Your task to perform on an android device: Go to Android settings Image 0: 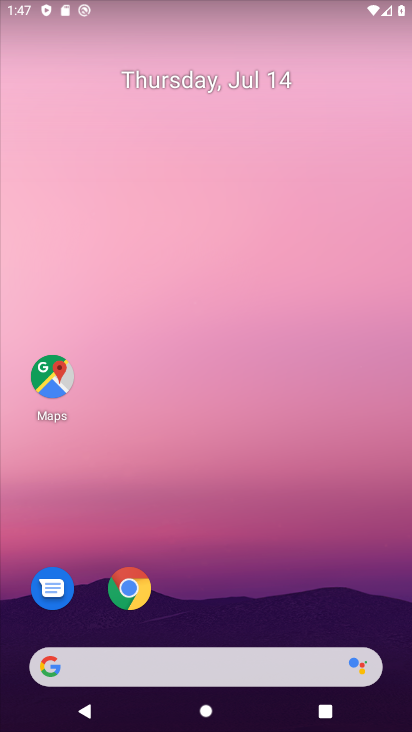
Step 0: drag from (274, 590) to (312, 163)
Your task to perform on an android device: Go to Android settings Image 1: 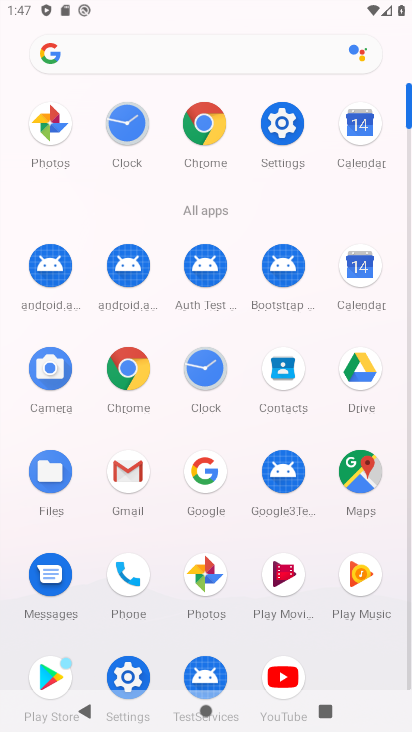
Step 1: click (287, 128)
Your task to perform on an android device: Go to Android settings Image 2: 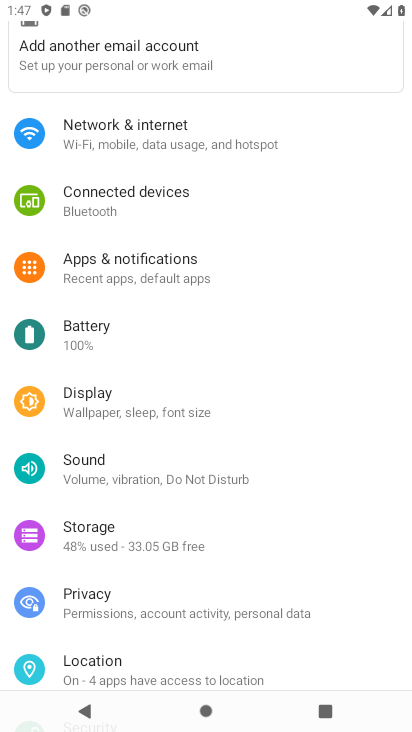
Step 2: drag from (176, 580) to (158, 221)
Your task to perform on an android device: Go to Android settings Image 3: 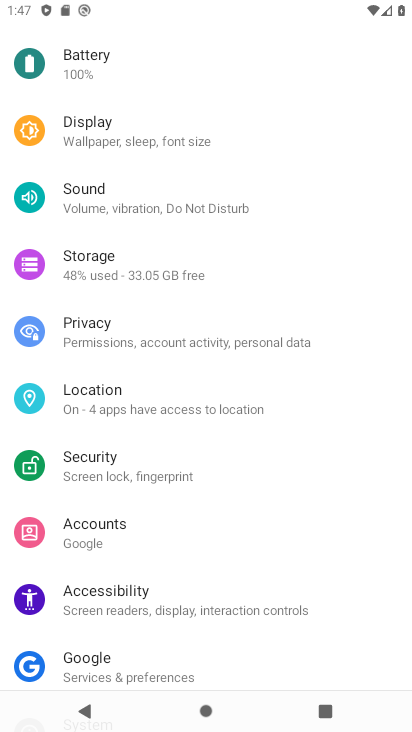
Step 3: drag from (139, 635) to (167, 247)
Your task to perform on an android device: Go to Android settings Image 4: 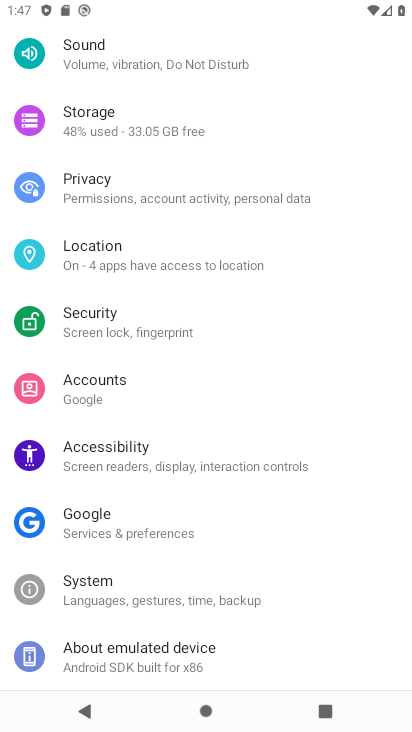
Step 4: click (109, 589)
Your task to perform on an android device: Go to Android settings Image 5: 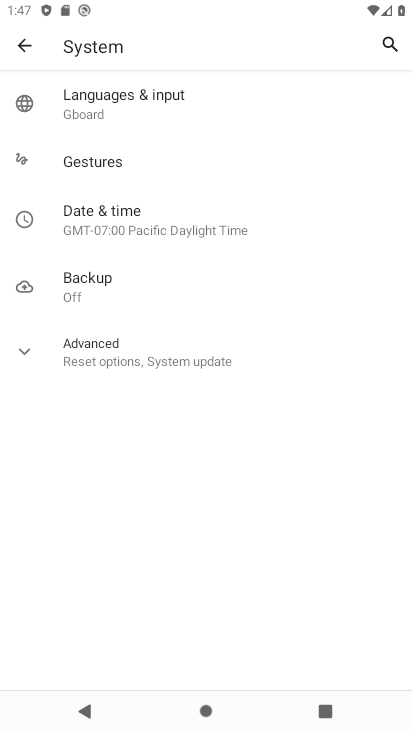
Step 5: task complete